Your task to perform on an android device: turn smart compose on in the gmail app Image 0: 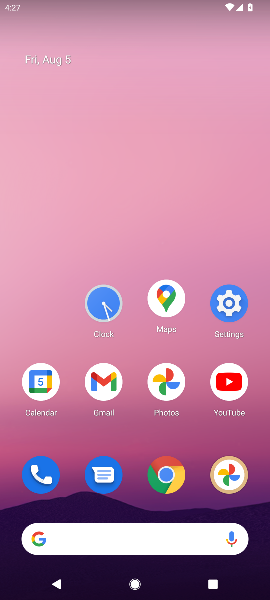
Step 0: click (160, 470)
Your task to perform on an android device: turn smart compose on in the gmail app Image 1: 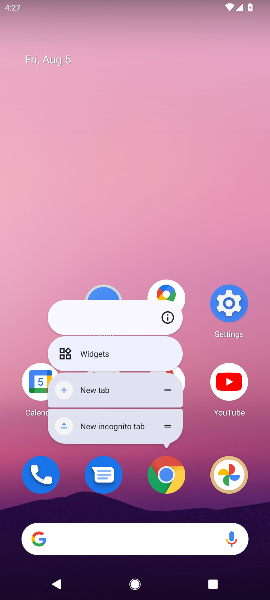
Step 1: click (162, 314)
Your task to perform on an android device: turn smart compose on in the gmail app Image 2: 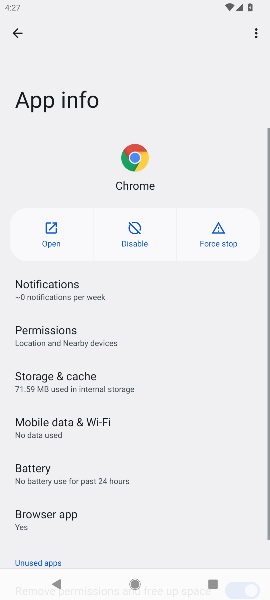
Step 2: drag from (162, 534) to (150, 160)
Your task to perform on an android device: turn smart compose on in the gmail app Image 3: 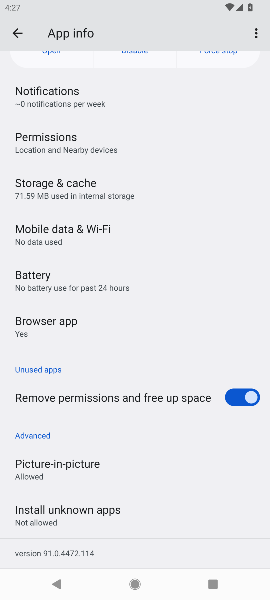
Step 3: drag from (151, 537) to (194, 216)
Your task to perform on an android device: turn smart compose on in the gmail app Image 4: 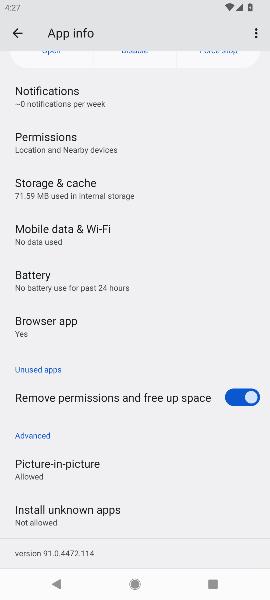
Step 4: click (34, 466)
Your task to perform on an android device: turn smart compose on in the gmail app Image 5: 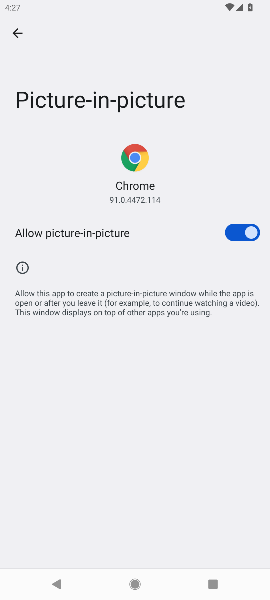
Step 5: task complete